Your task to perform on an android device: Open Reddit.com Image 0: 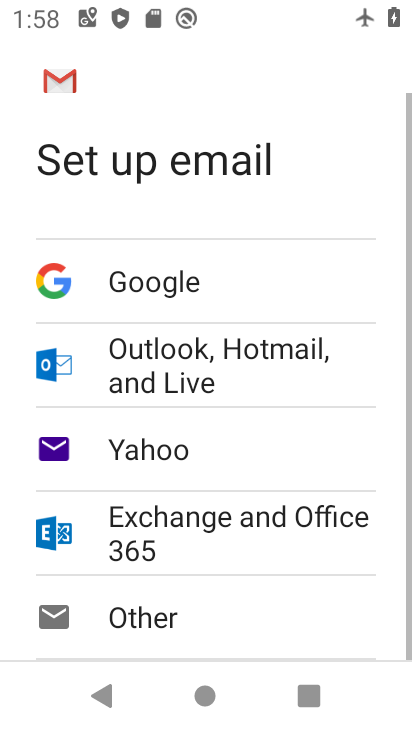
Step 0: press home button
Your task to perform on an android device: Open Reddit.com Image 1: 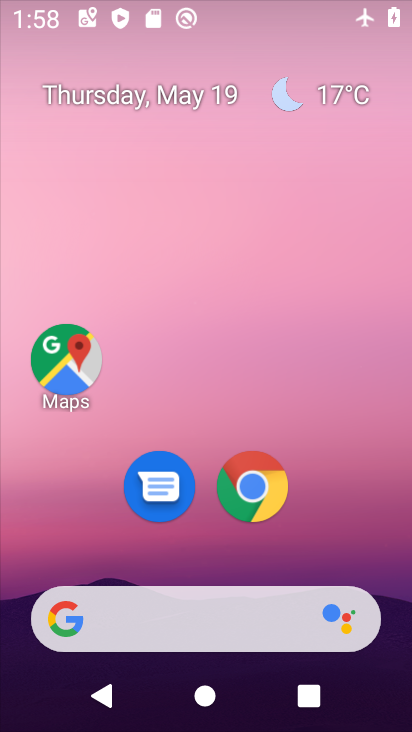
Step 1: click (259, 490)
Your task to perform on an android device: Open Reddit.com Image 2: 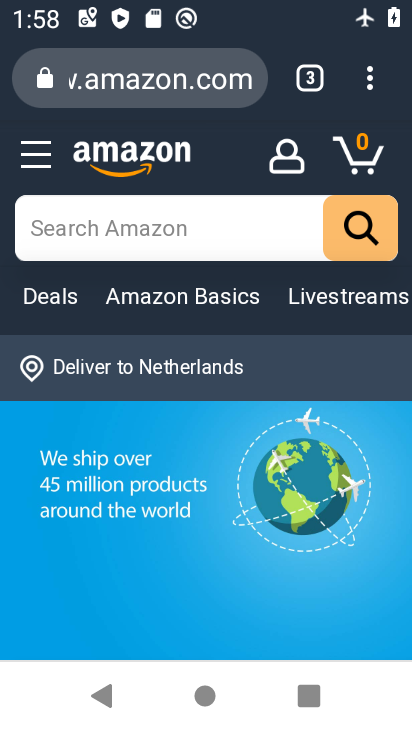
Step 2: click (313, 77)
Your task to perform on an android device: Open Reddit.com Image 3: 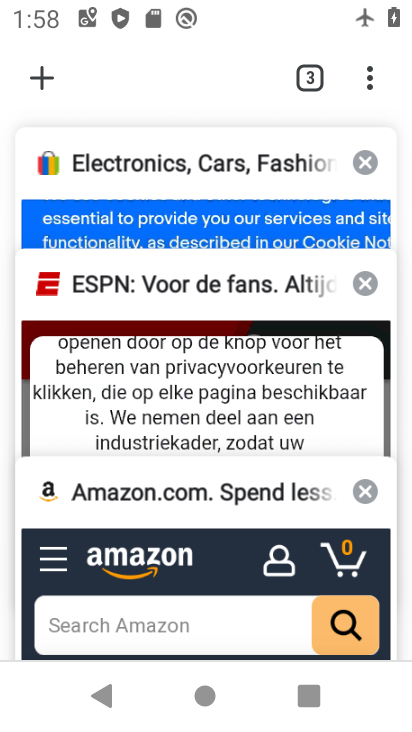
Step 3: click (40, 75)
Your task to perform on an android device: Open Reddit.com Image 4: 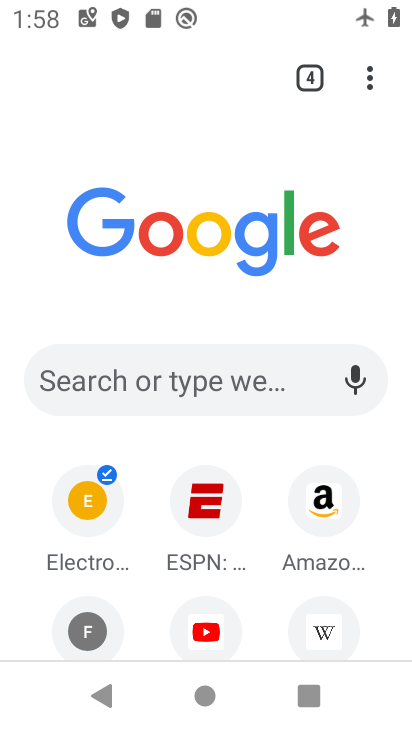
Step 4: click (243, 388)
Your task to perform on an android device: Open Reddit.com Image 5: 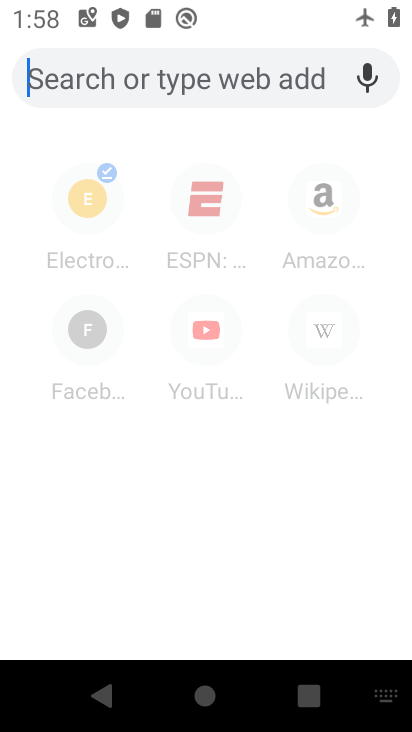
Step 5: type "Reddit.com"
Your task to perform on an android device: Open Reddit.com Image 6: 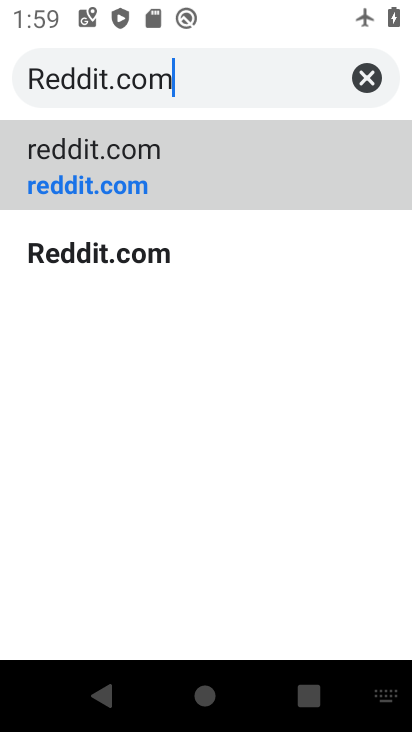
Step 6: click (294, 179)
Your task to perform on an android device: Open Reddit.com Image 7: 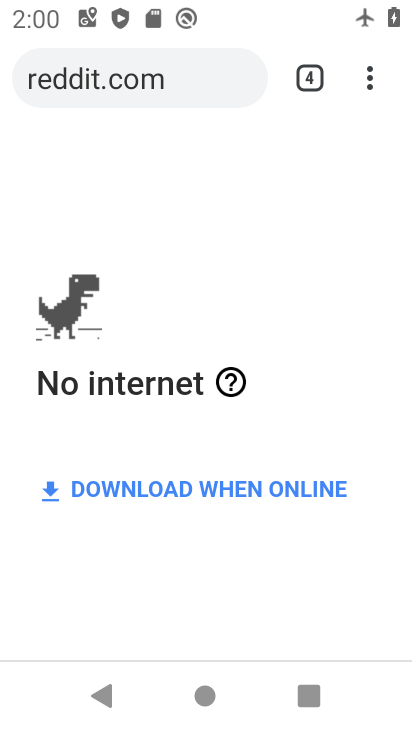
Step 7: task complete